Your task to perform on an android device: turn off wifi Image 0: 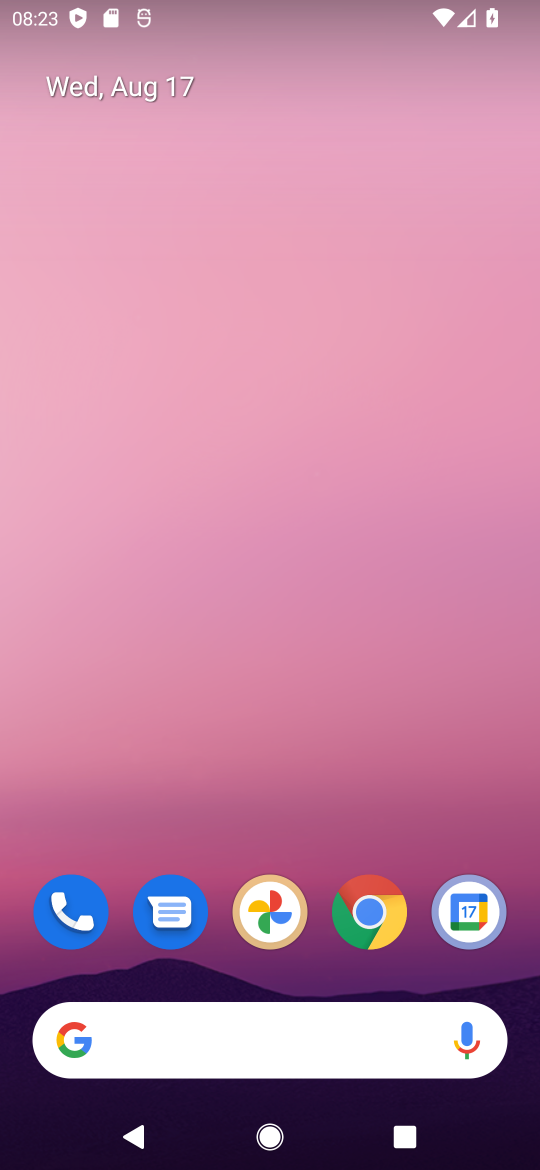
Step 0: drag from (230, 934) to (342, 228)
Your task to perform on an android device: turn off wifi Image 1: 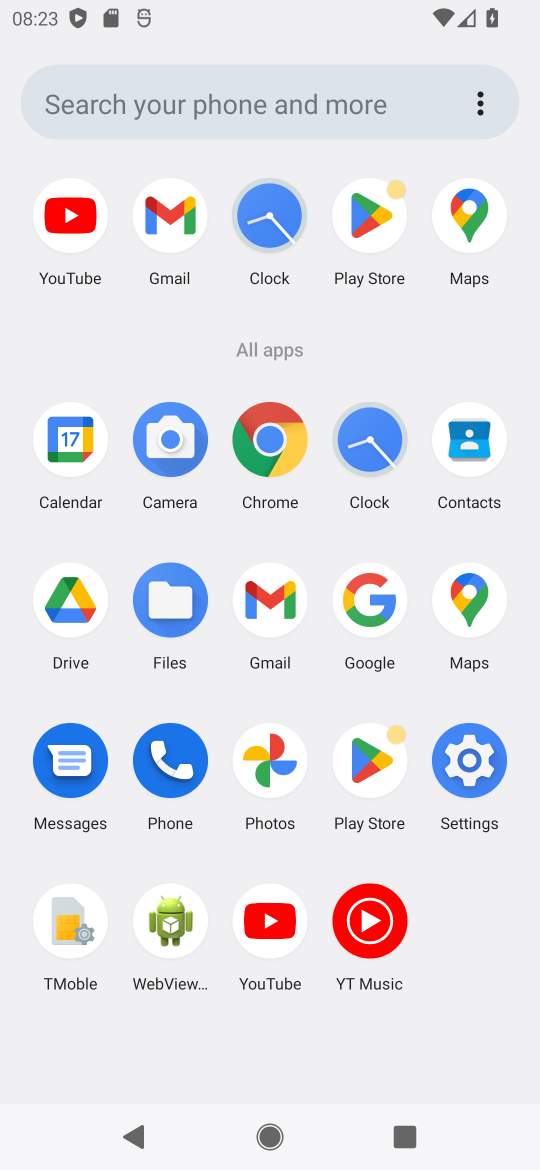
Step 1: click (490, 760)
Your task to perform on an android device: turn off wifi Image 2: 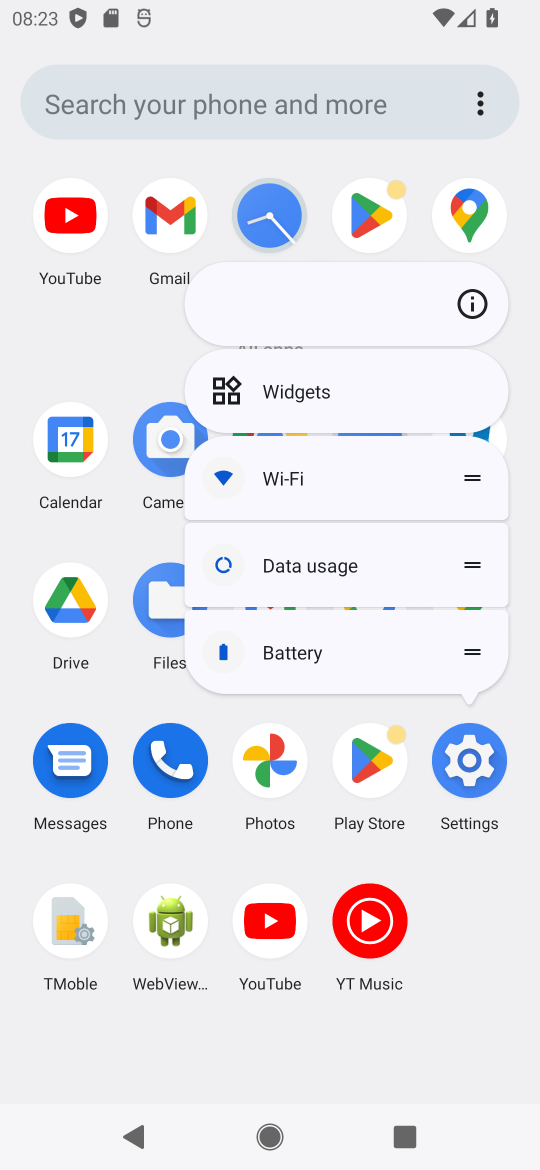
Step 2: click (479, 757)
Your task to perform on an android device: turn off wifi Image 3: 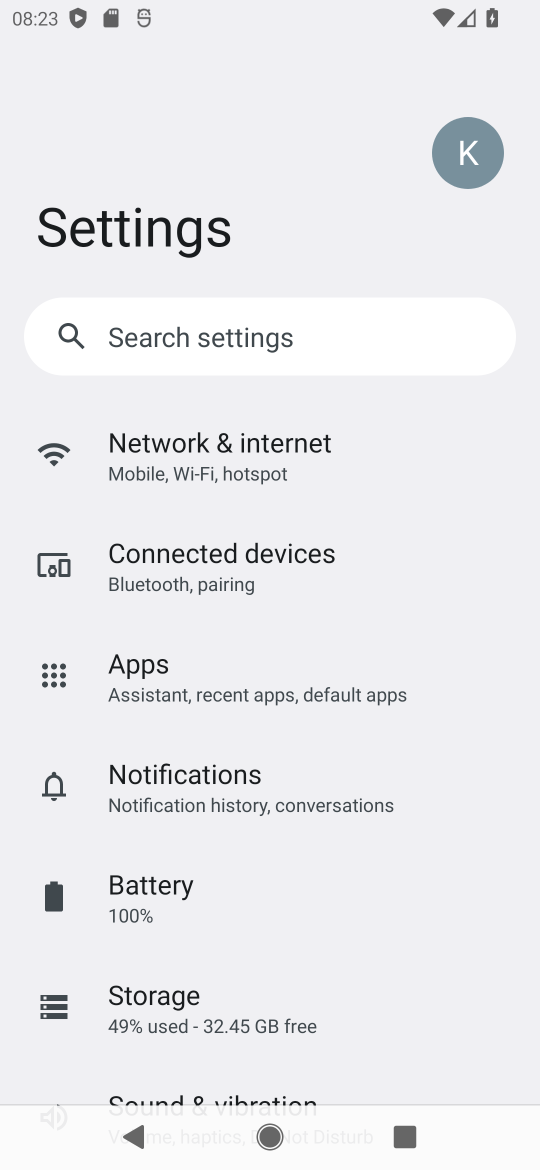
Step 3: click (168, 475)
Your task to perform on an android device: turn off wifi Image 4: 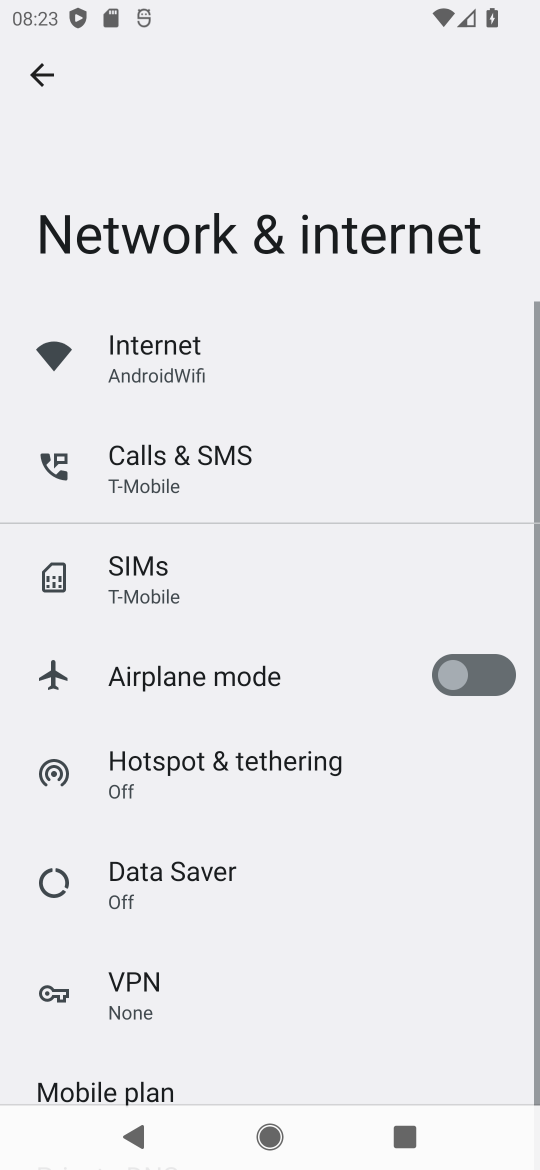
Step 4: click (150, 341)
Your task to perform on an android device: turn off wifi Image 5: 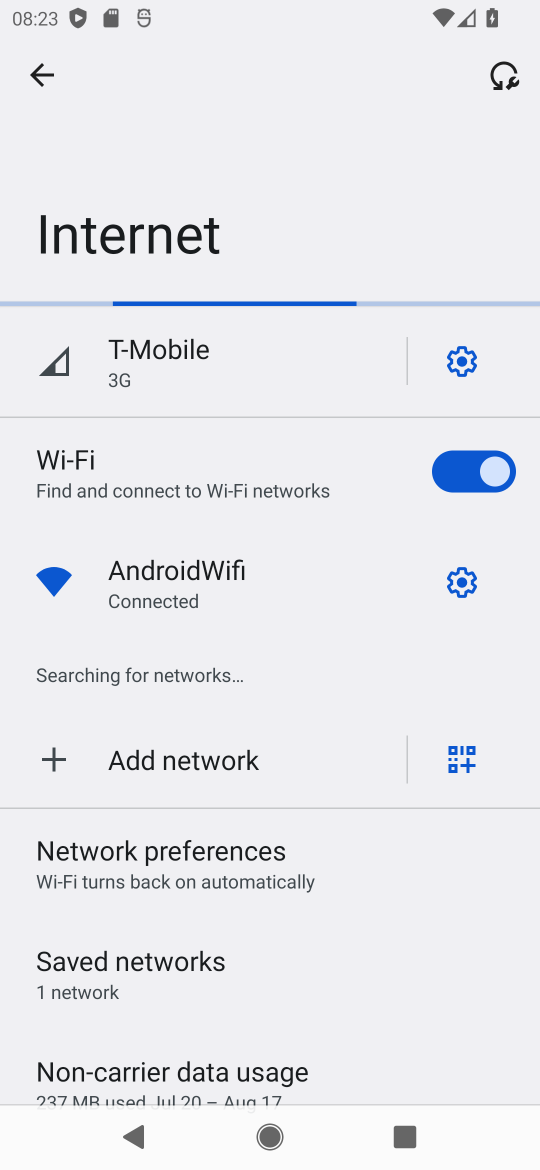
Step 5: click (465, 472)
Your task to perform on an android device: turn off wifi Image 6: 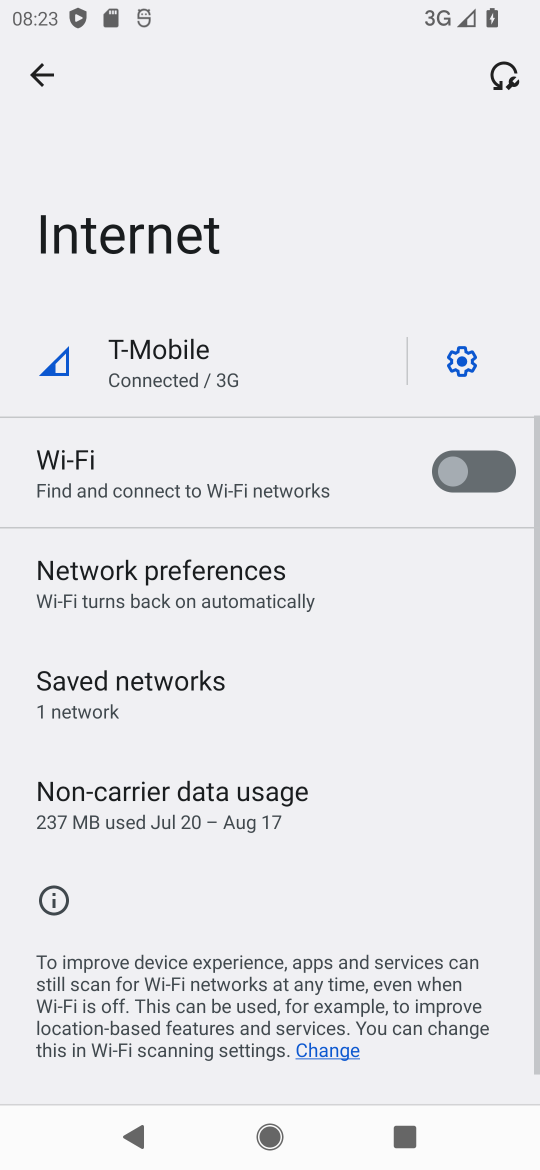
Step 6: task complete